Your task to perform on an android device: clear history in the chrome app Image 0: 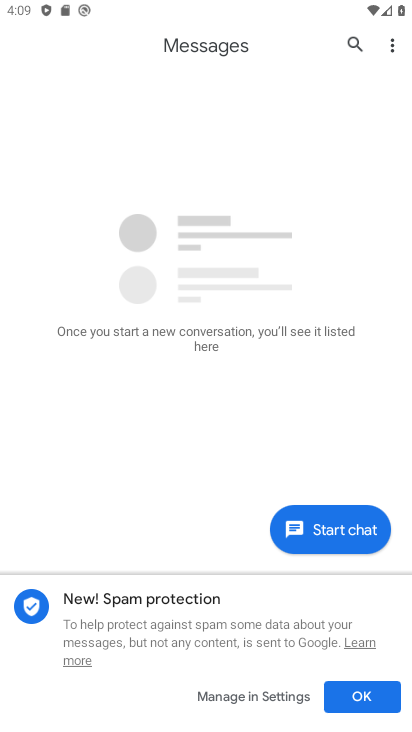
Step 0: press home button
Your task to perform on an android device: clear history in the chrome app Image 1: 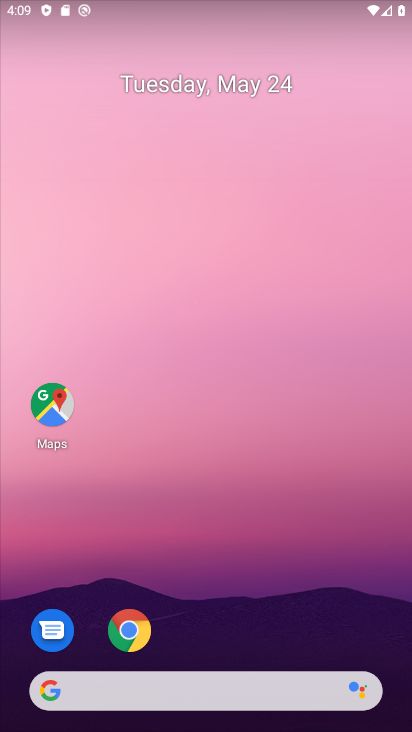
Step 1: click (126, 629)
Your task to perform on an android device: clear history in the chrome app Image 2: 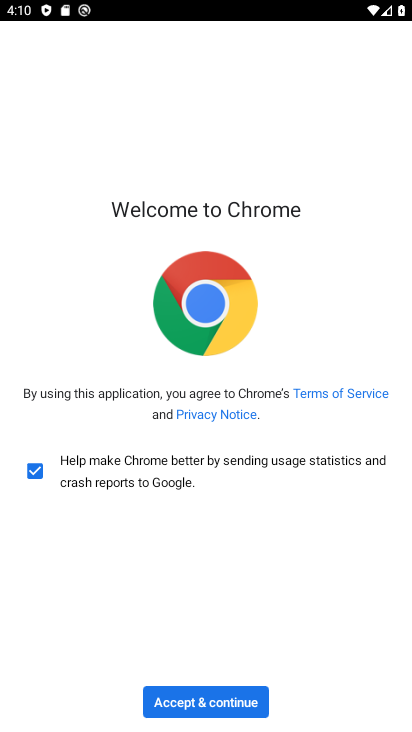
Step 2: click (209, 697)
Your task to perform on an android device: clear history in the chrome app Image 3: 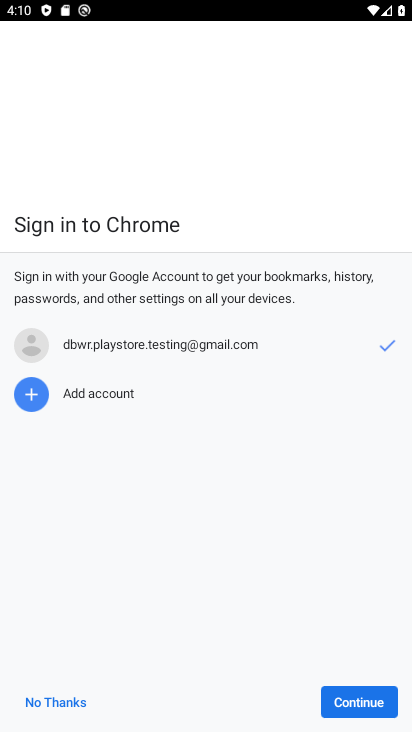
Step 3: click (377, 703)
Your task to perform on an android device: clear history in the chrome app Image 4: 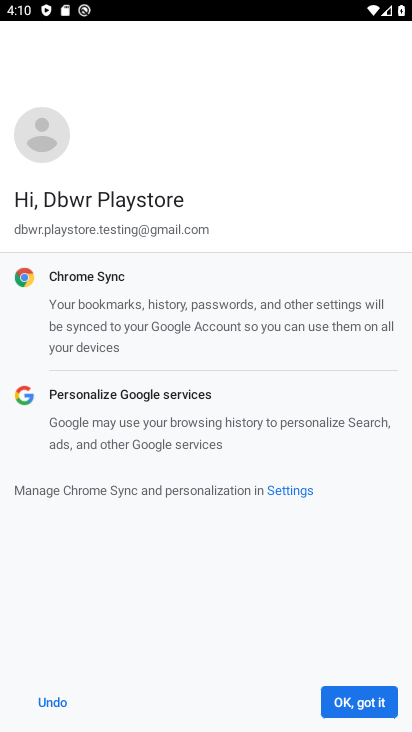
Step 4: click (340, 705)
Your task to perform on an android device: clear history in the chrome app Image 5: 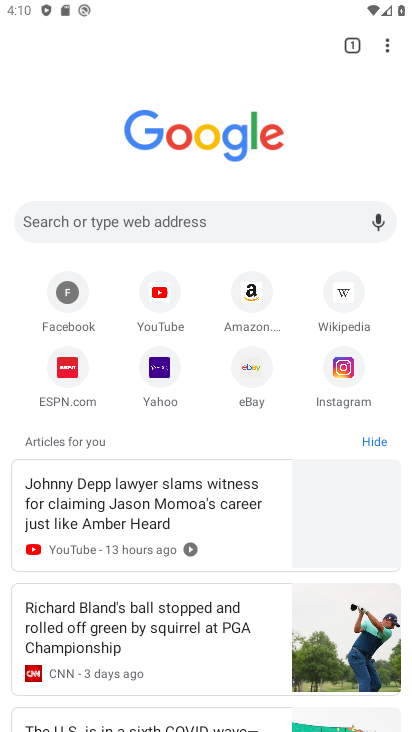
Step 5: click (395, 41)
Your task to perform on an android device: clear history in the chrome app Image 6: 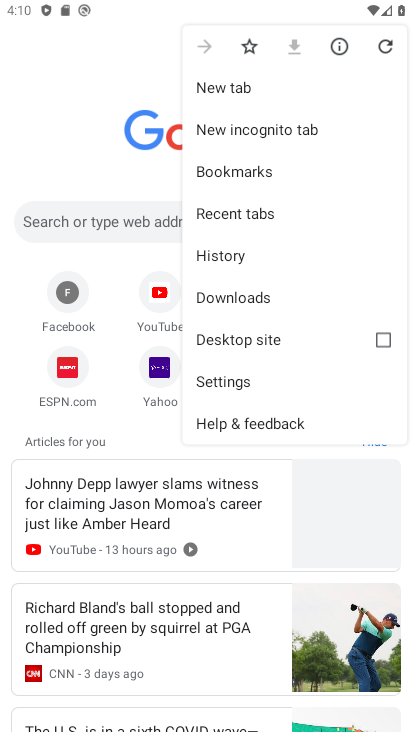
Step 6: click (263, 253)
Your task to perform on an android device: clear history in the chrome app Image 7: 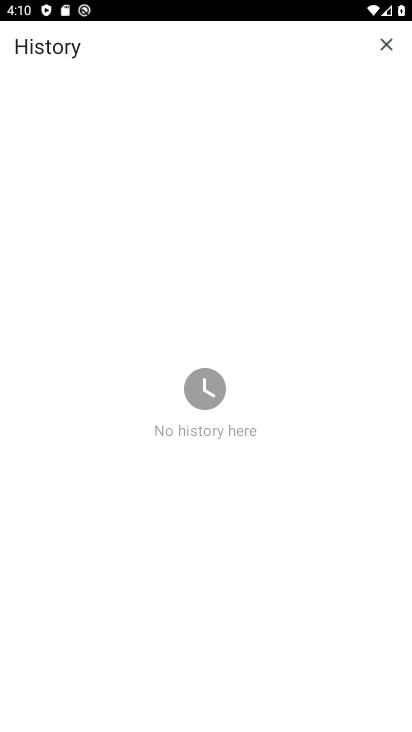
Step 7: task complete